Your task to perform on an android device: clear all cookies in the chrome app Image 0: 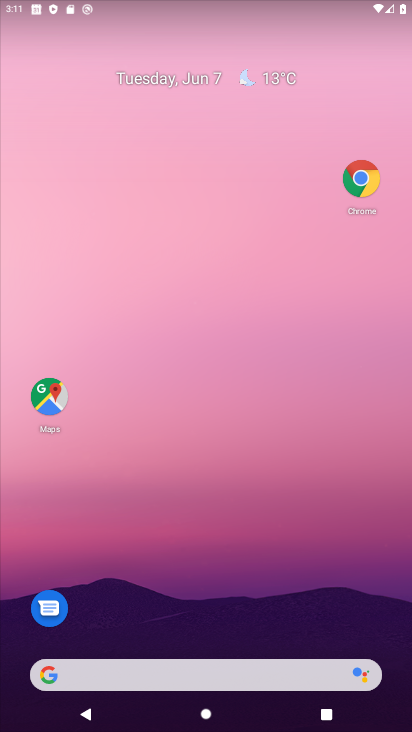
Step 0: drag from (200, 656) to (317, 123)
Your task to perform on an android device: clear all cookies in the chrome app Image 1: 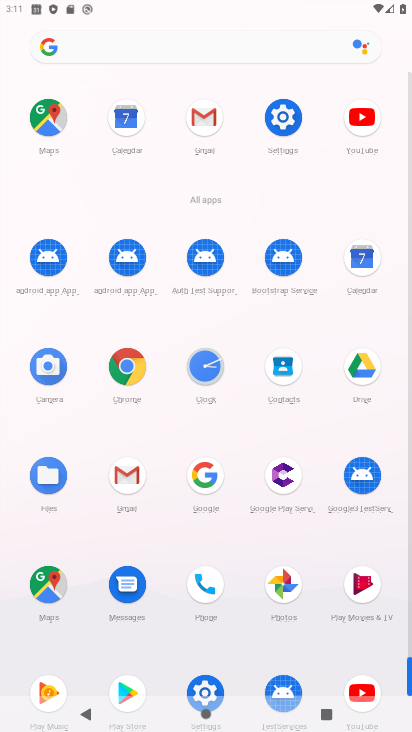
Step 1: click (129, 384)
Your task to perform on an android device: clear all cookies in the chrome app Image 2: 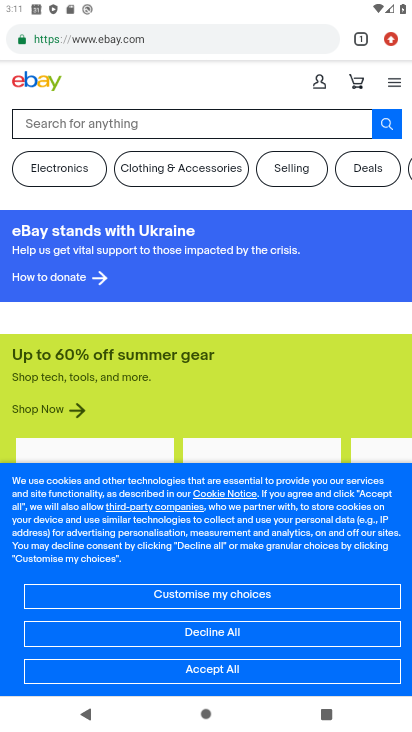
Step 2: drag from (396, 38) to (290, 513)
Your task to perform on an android device: clear all cookies in the chrome app Image 3: 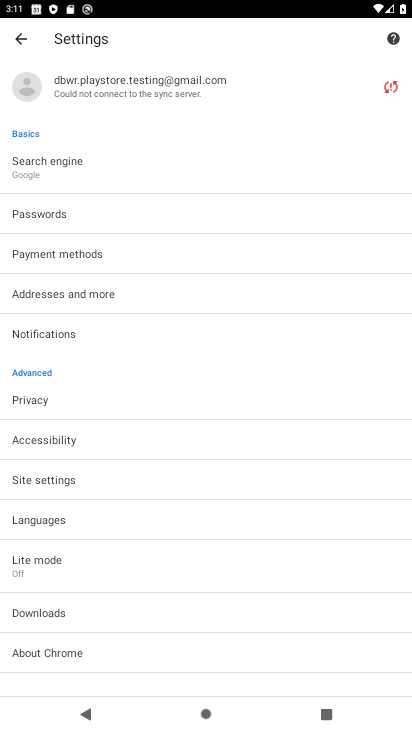
Step 3: click (93, 401)
Your task to perform on an android device: clear all cookies in the chrome app Image 4: 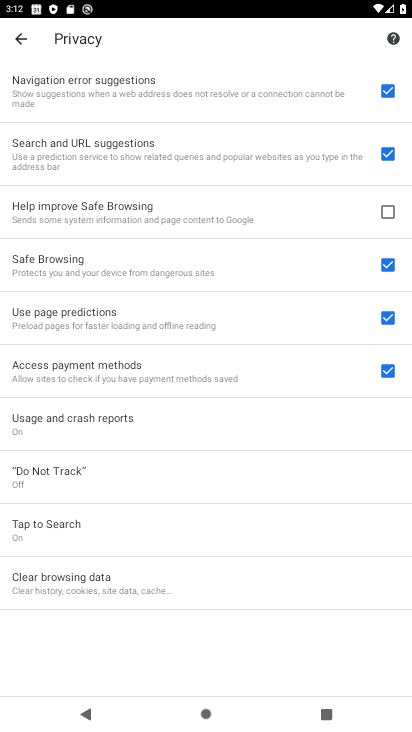
Step 4: click (151, 597)
Your task to perform on an android device: clear all cookies in the chrome app Image 5: 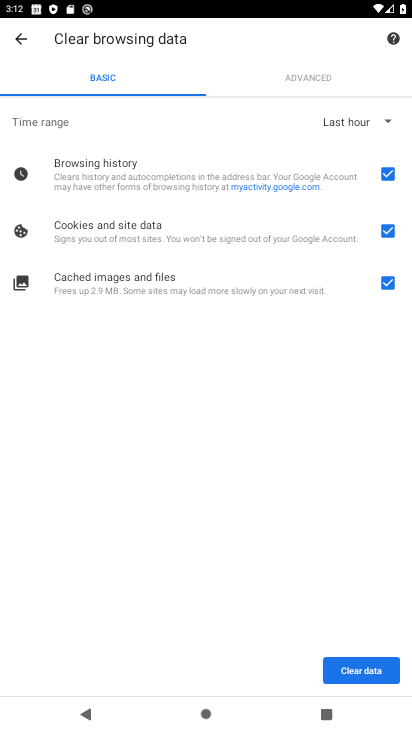
Step 5: click (390, 173)
Your task to perform on an android device: clear all cookies in the chrome app Image 6: 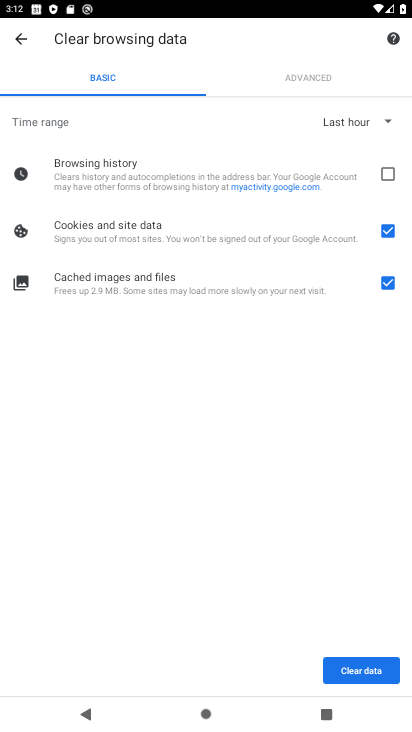
Step 6: click (384, 291)
Your task to perform on an android device: clear all cookies in the chrome app Image 7: 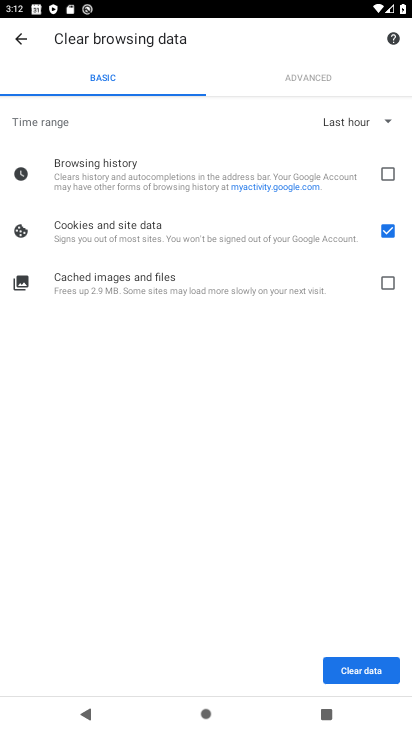
Step 7: click (360, 683)
Your task to perform on an android device: clear all cookies in the chrome app Image 8: 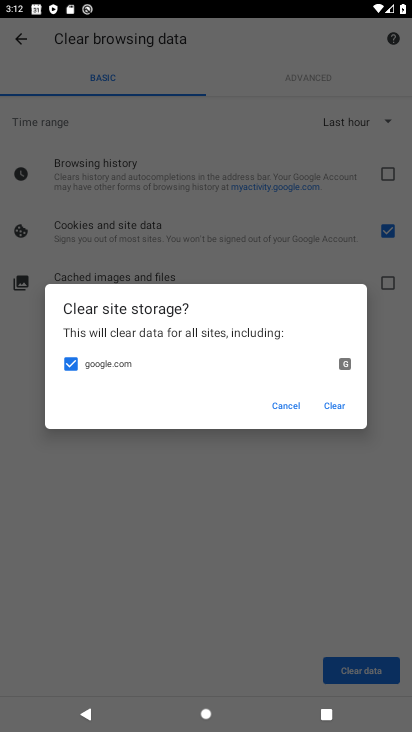
Step 8: click (340, 418)
Your task to perform on an android device: clear all cookies in the chrome app Image 9: 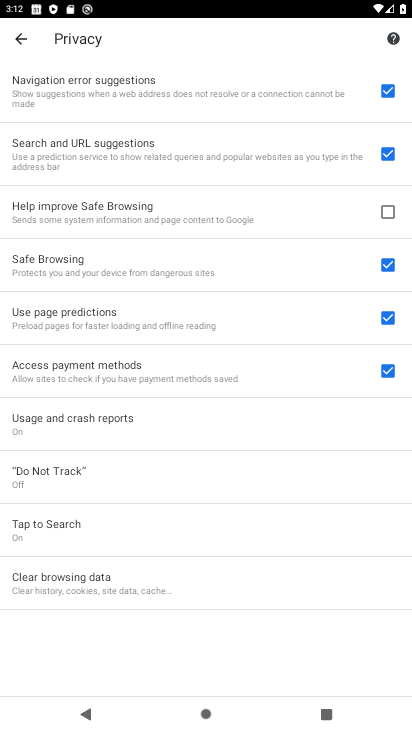
Step 9: task complete